Your task to perform on an android device: Go to Yahoo.com Image 0: 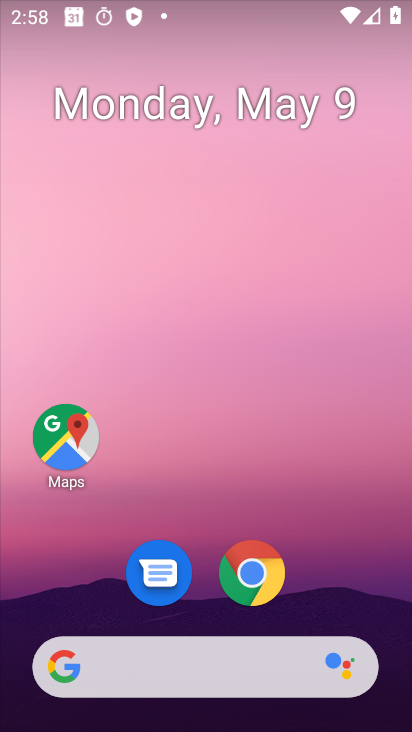
Step 0: drag from (281, 703) to (160, 26)
Your task to perform on an android device: Go to Yahoo.com Image 1: 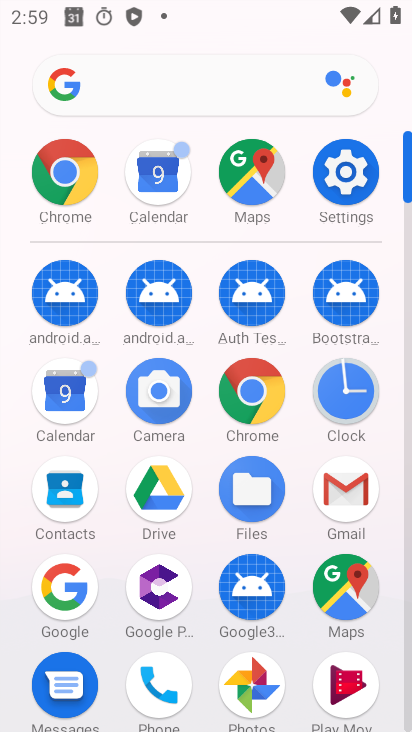
Step 1: click (67, 189)
Your task to perform on an android device: Go to Yahoo.com Image 2: 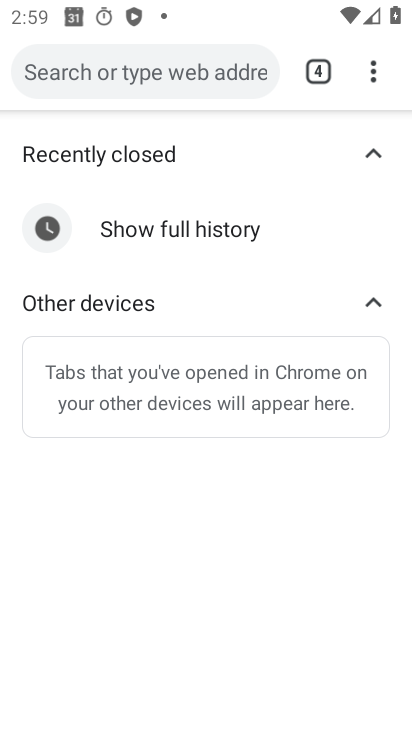
Step 2: click (373, 70)
Your task to perform on an android device: Go to Yahoo.com Image 3: 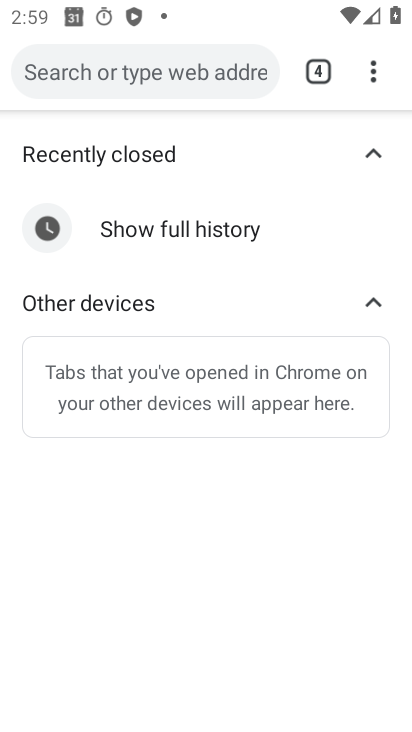
Step 3: drag from (373, 70) to (94, 138)
Your task to perform on an android device: Go to Yahoo.com Image 4: 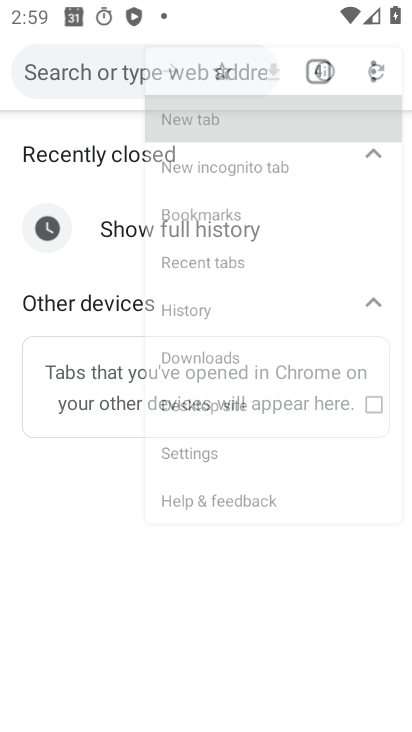
Step 4: click (98, 120)
Your task to perform on an android device: Go to Yahoo.com Image 5: 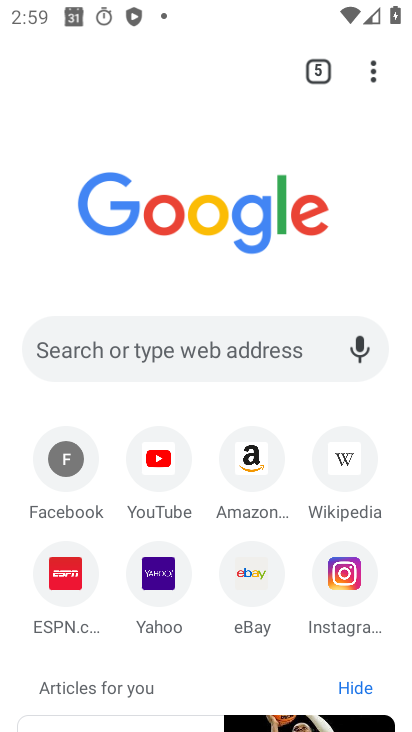
Step 5: click (159, 576)
Your task to perform on an android device: Go to Yahoo.com Image 6: 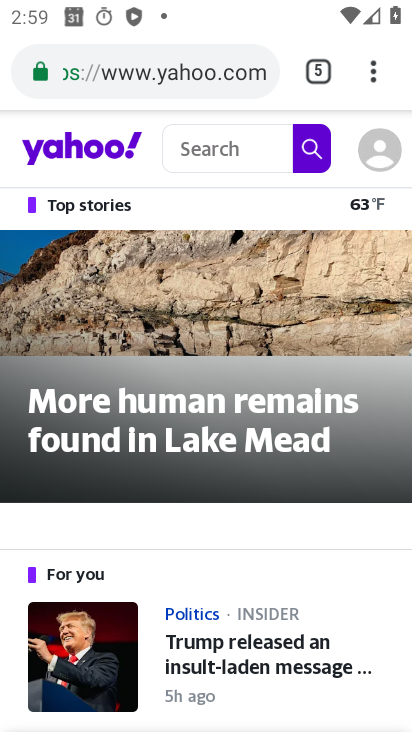
Step 6: task complete